Your task to perform on an android device: add a label to a message in the gmail app Image 0: 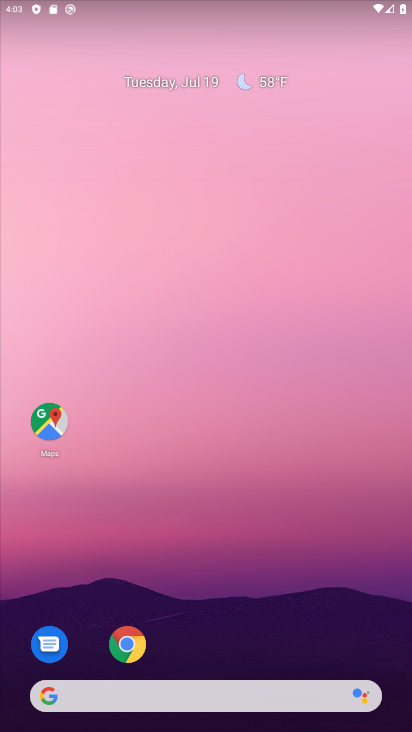
Step 0: drag from (318, 640) to (226, 87)
Your task to perform on an android device: add a label to a message in the gmail app Image 1: 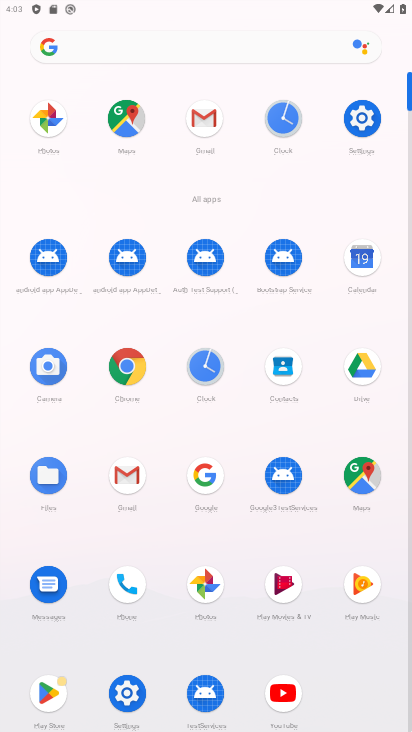
Step 1: click (202, 122)
Your task to perform on an android device: add a label to a message in the gmail app Image 2: 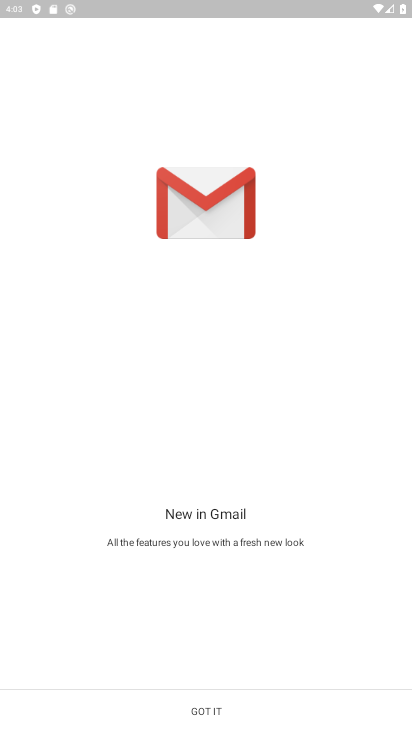
Step 2: click (227, 708)
Your task to perform on an android device: add a label to a message in the gmail app Image 3: 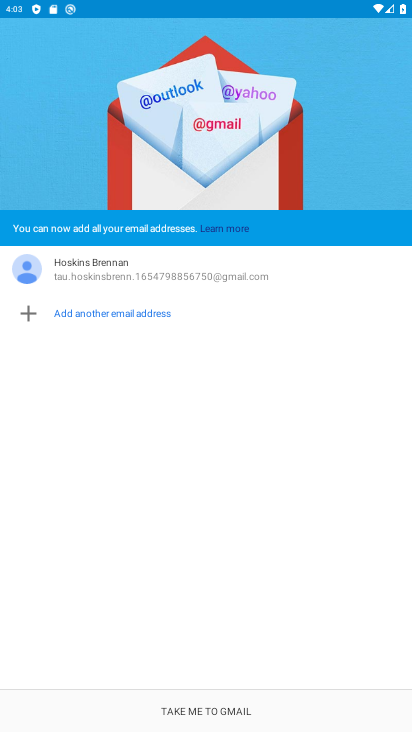
Step 3: click (227, 708)
Your task to perform on an android device: add a label to a message in the gmail app Image 4: 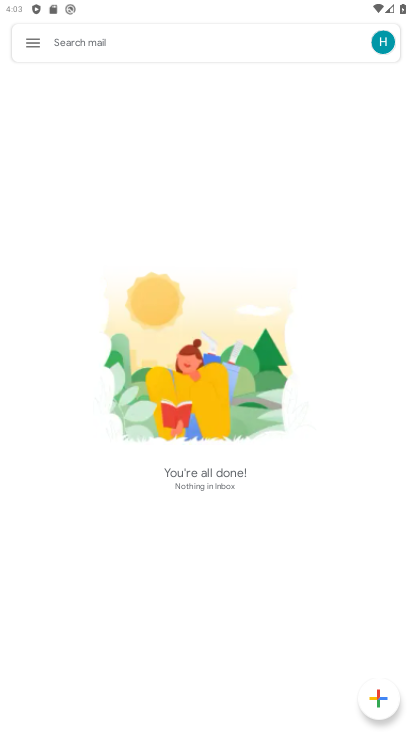
Step 4: click (35, 42)
Your task to perform on an android device: add a label to a message in the gmail app Image 5: 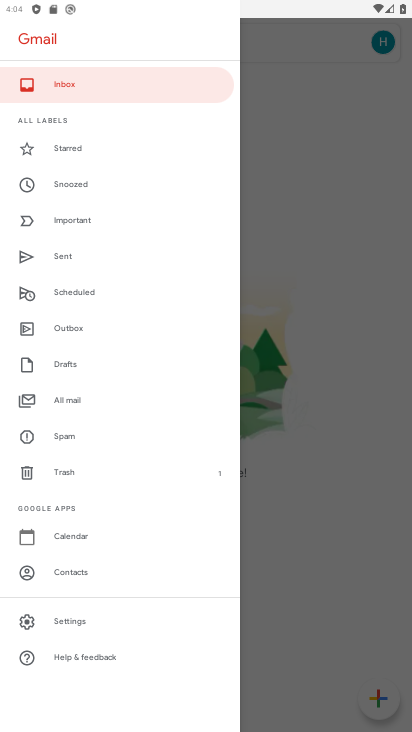
Step 5: click (335, 402)
Your task to perform on an android device: add a label to a message in the gmail app Image 6: 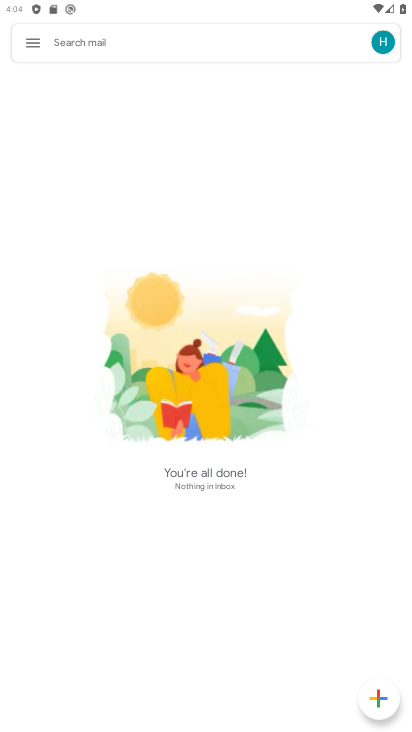
Step 6: click (32, 46)
Your task to perform on an android device: add a label to a message in the gmail app Image 7: 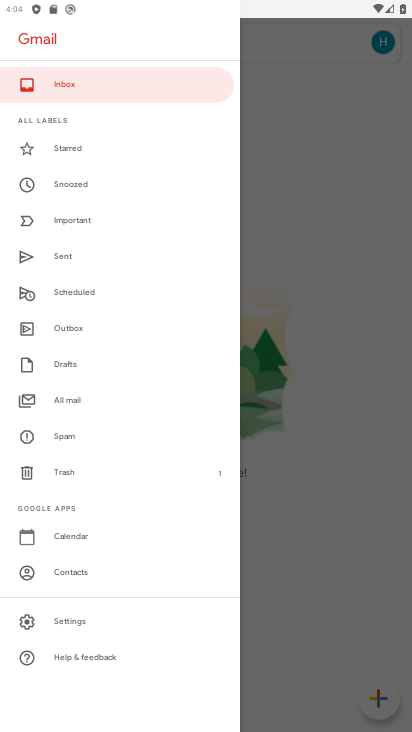
Step 7: click (67, 401)
Your task to perform on an android device: add a label to a message in the gmail app Image 8: 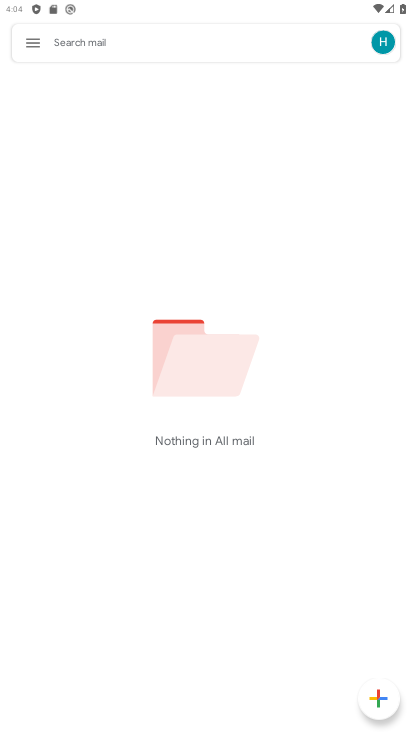
Step 8: task complete